Your task to perform on an android device: Show me productivity apps on the Play Store Image 0: 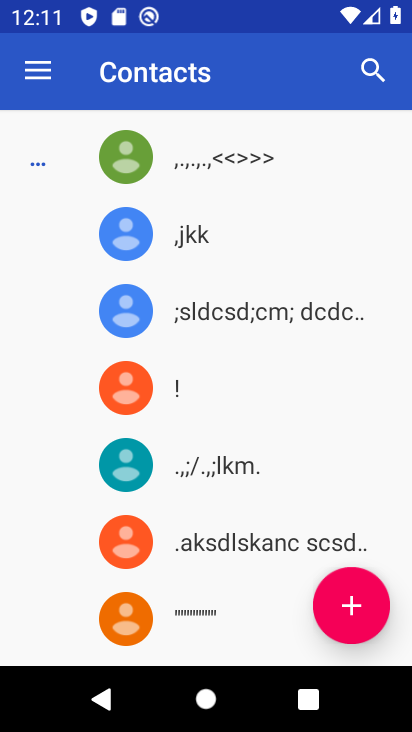
Step 0: press home button
Your task to perform on an android device: Show me productivity apps on the Play Store Image 1: 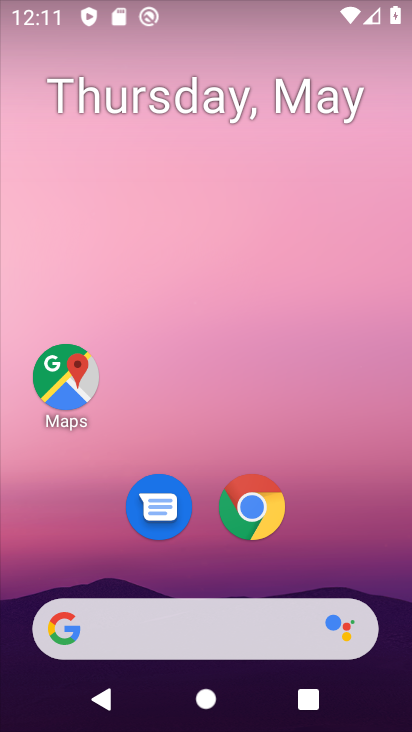
Step 1: drag from (289, 573) to (302, 63)
Your task to perform on an android device: Show me productivity apps on the Play Store Image 2: 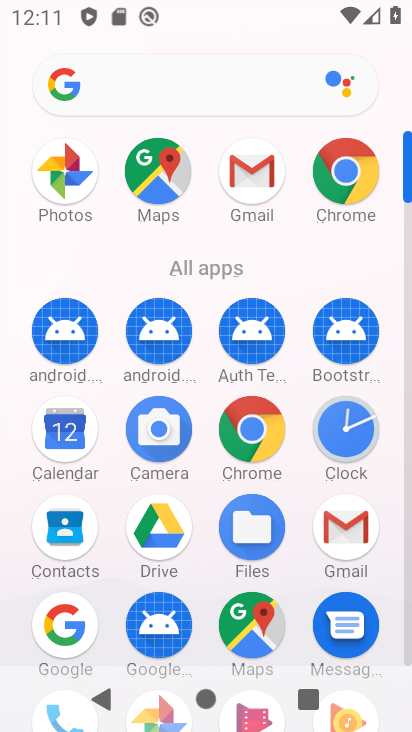
Step 2: drag from (202, 632) to (223, 364)
Your task to perform on an android device: Show me productivity apps on the Play Store Image 3: 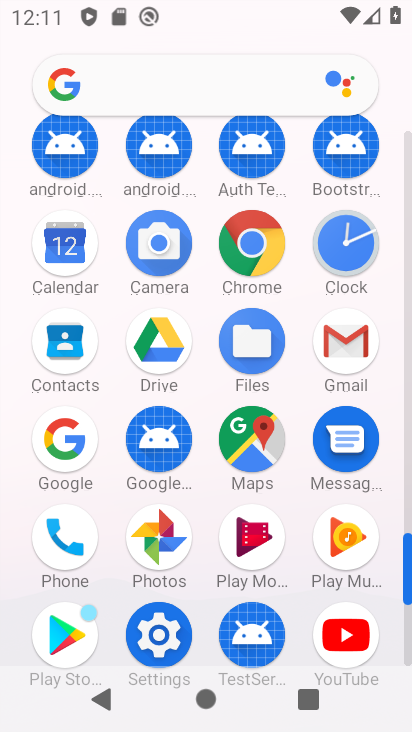
Step 3: click (48, 640)
Your task to perform on an android device: Show me productivity apps on the Play Store Image 4: 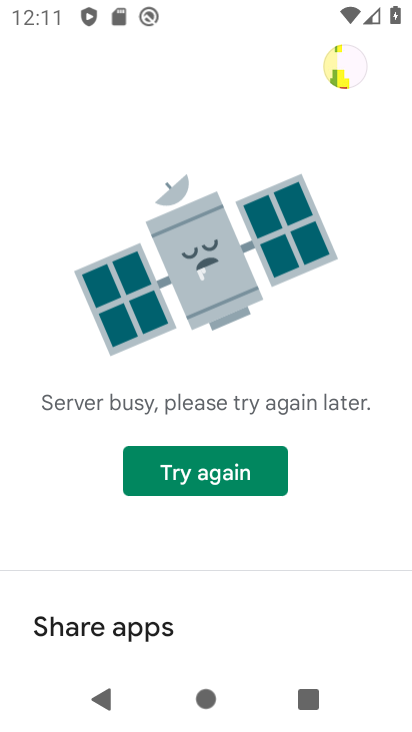
Step 4: click (200, 474)
Your task to perform on an android device: Show me productivity apps on the Play Store Image 5: 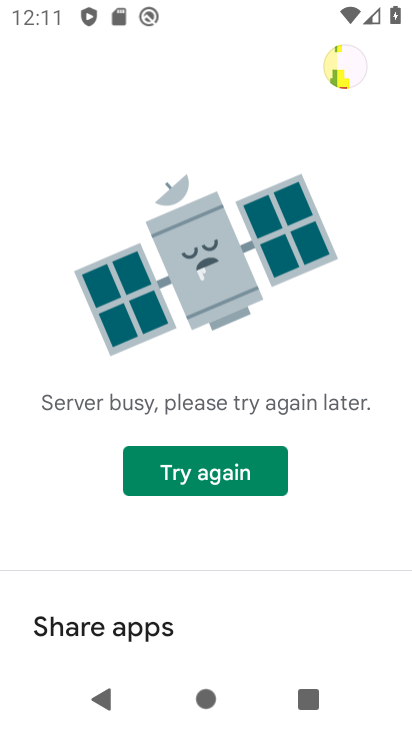
Step 5: click (200, 473)
Your task to perform on an android device: Show me productivity apps on the Play Store Image 6: 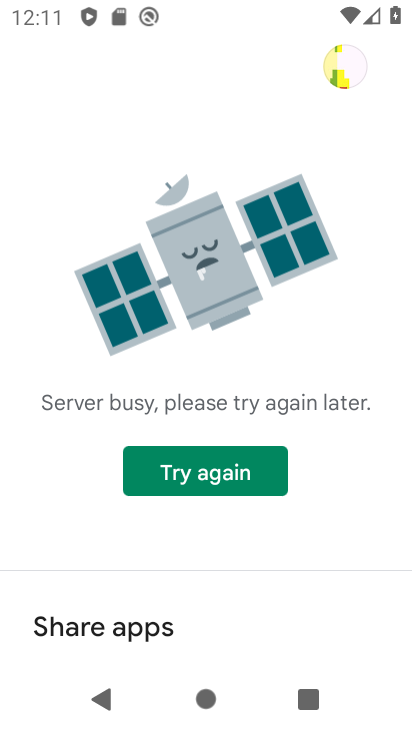
Step 6: task complete